Your task to perform on an android device: clear all cookies in the chrome app Image 0: 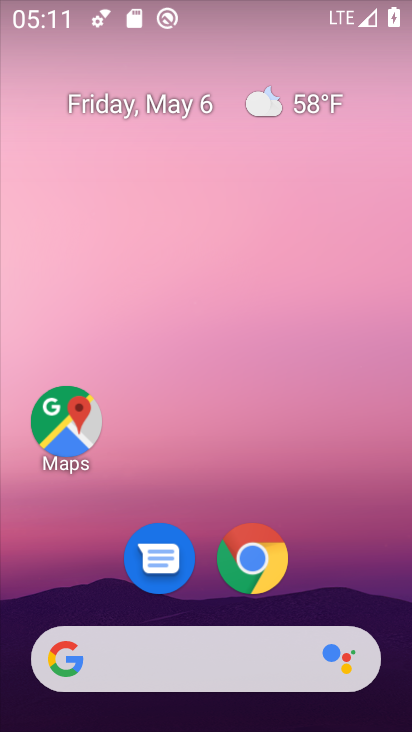
Step 0: drag from (311, 617) to (302, 1)
Your task to perform on an android device: clear all cookies in the chrome app Image 1: 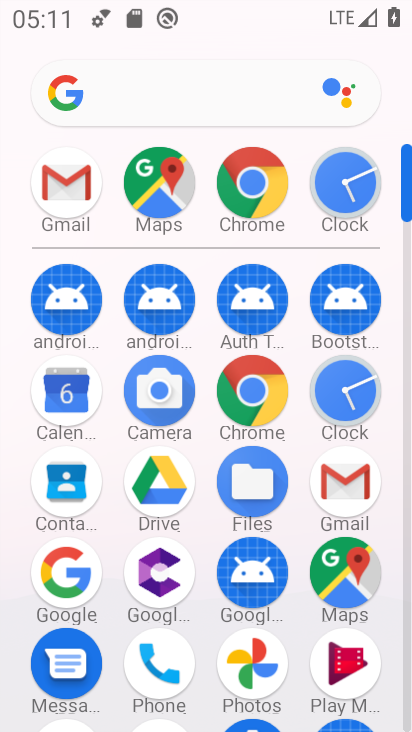
Step 1: click (257, 396)
Your task to perform on an android device: clear all cookies in the chrome app Image 2: 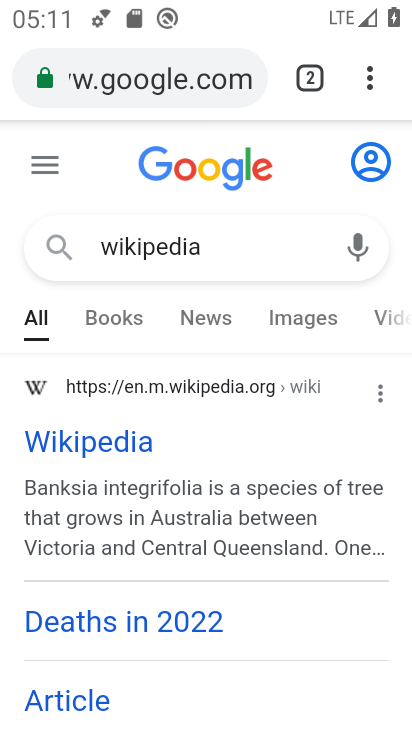
Step 2: drag from (376, 65) to (164, 632)
Your task to perform on an android device: clear all cookies in the chrome app Image 3: 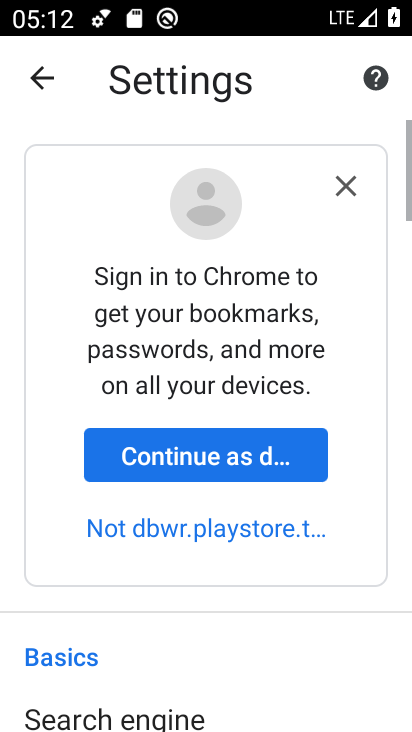
Step 3: drag from (252, 620) to (237, 63)
Your task to perform on an android device: clear all cookies in the chrome app Image 4: 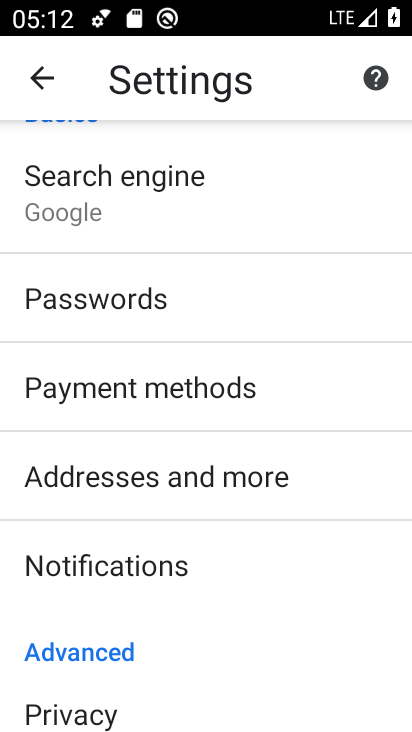
Step 4: drag from (229, 697) to (211, 460)
Your task to perform on an android device: clear all cookies in the chrome app Image 5: 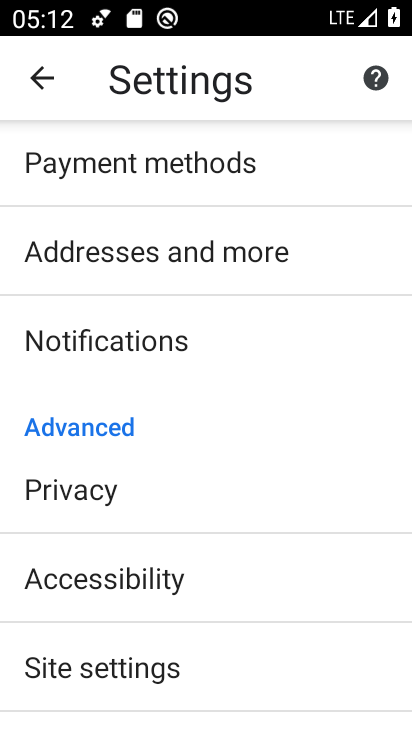
Step 5: click (122, 702)
Your task to perform on an android device: clear all cookies in the chrome app Image 6: 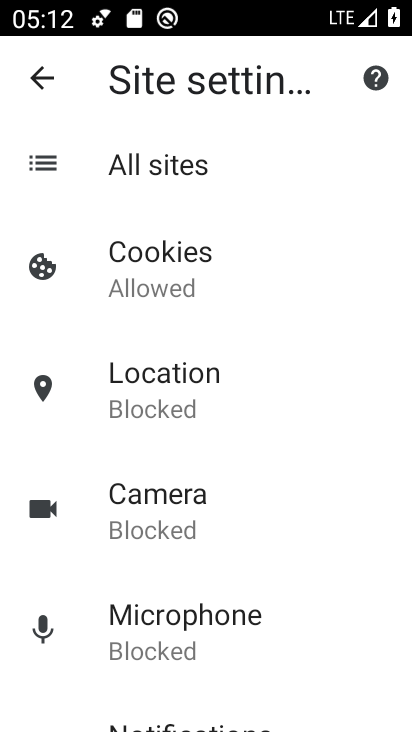
Step 6: click (175, 267)
Your task to perform on an android device: clear all cookies in the chrome app Image 7: 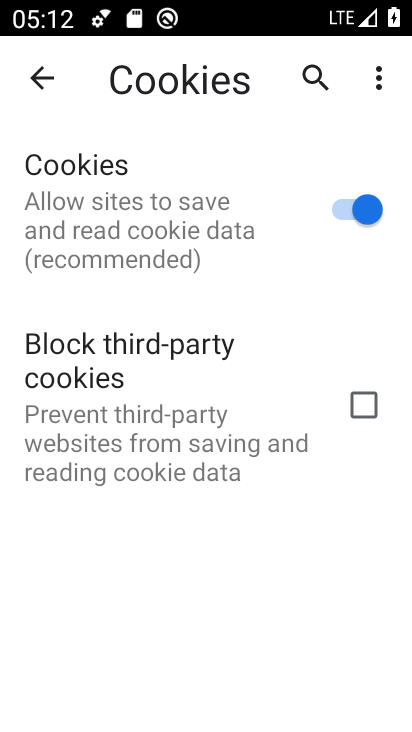
Step 7: press back button
Your task to perform on an android device: clear all cookies in the chrome app Image 8: 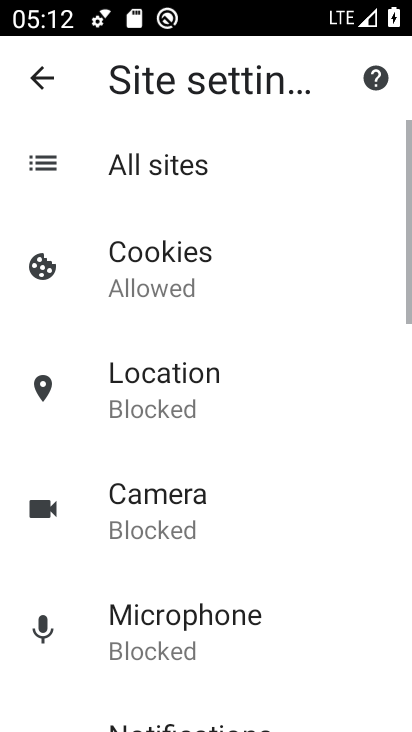
Step 8: press back button
Your task to perform on an android device: clear all cookies in the chrome app Image 9: 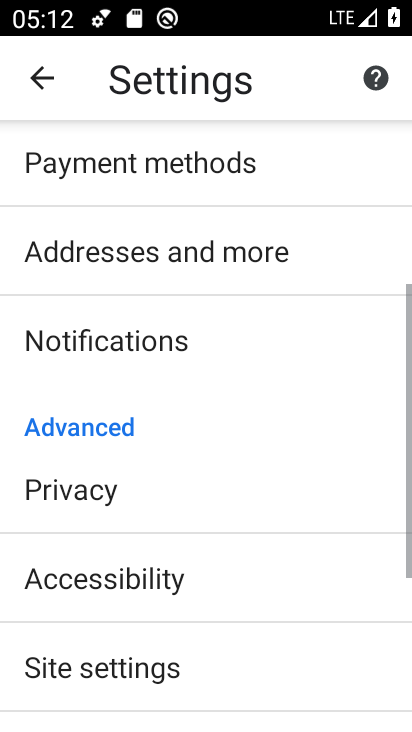
Step 9: drag from (228, 679) to (232, 79)
Your task to perform on an android device: clear all cookies in the chrome app Image 10: 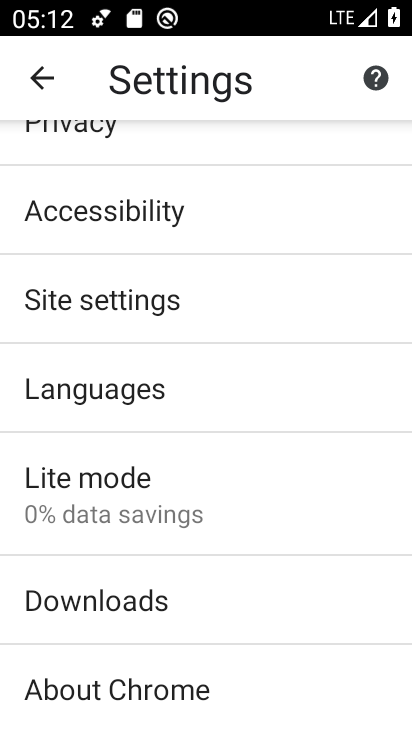
Step 10: drag from (228, 201) to (212, 583)
Your task to perform on an android device: clear all cookies in the chrome app Image 11: 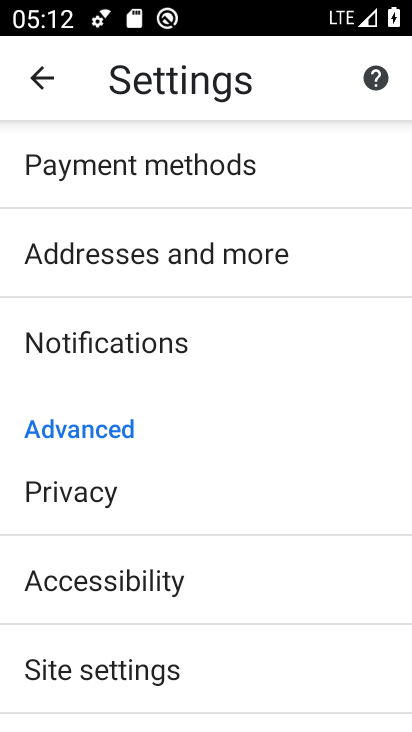
Step 11: click (124, 488)
Your task to perform on an android device: clear all cookies in the chrome app Image 12: 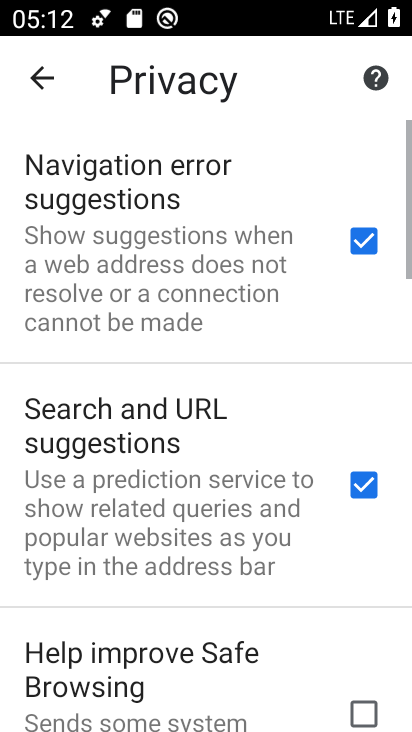
Step 12: drag from (211, 648) to (177, 110)
Your task to perform on an android device: clear all cookies in the chrome app Image 13: 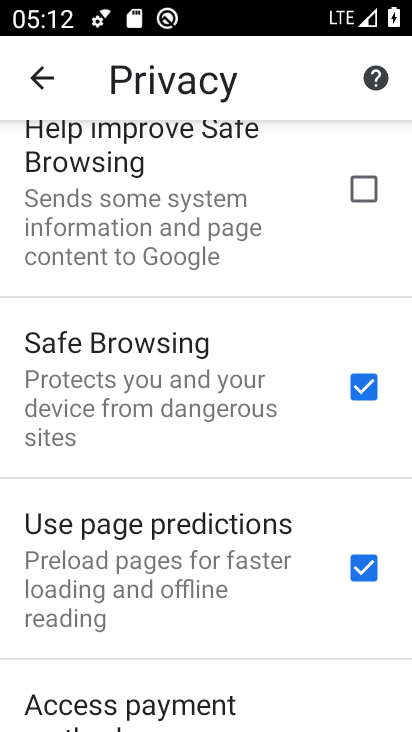
Step 13: drag from (228, 635) to (184, 88)
Your task to perform on an android device: clear all cookies in the chrome app Image 14: 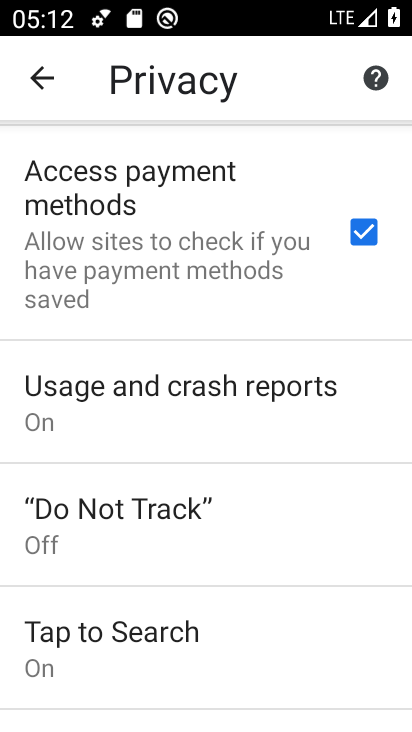
Step 14: drag from (251, 719) to (193, 237)
Your task to perform on an android device: clear all cookies in the chrome app Image 15: 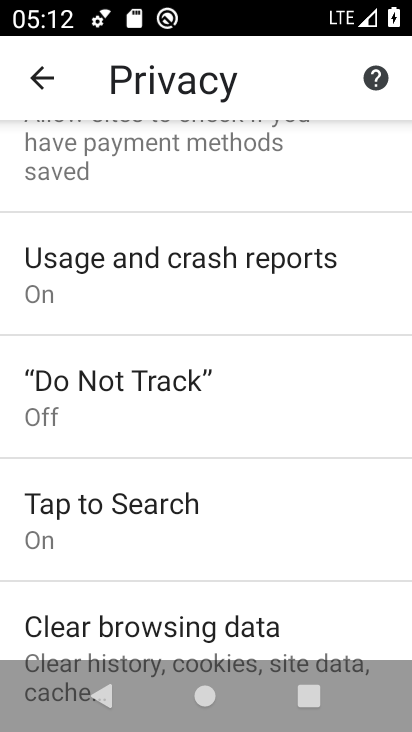
Step 15: click (290, 636)
Your task to perform on an android device: clear all cookies in the chrome app Image 16: 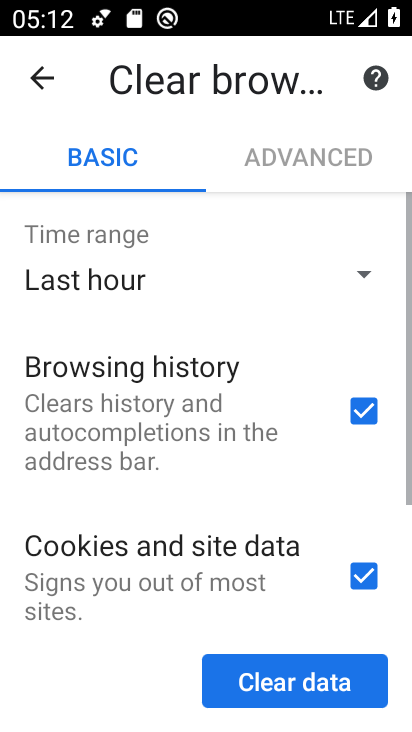
Step 16: click (346, 694)
Your task to perform on an android device: clear all cookies in the chrome app Image 17: 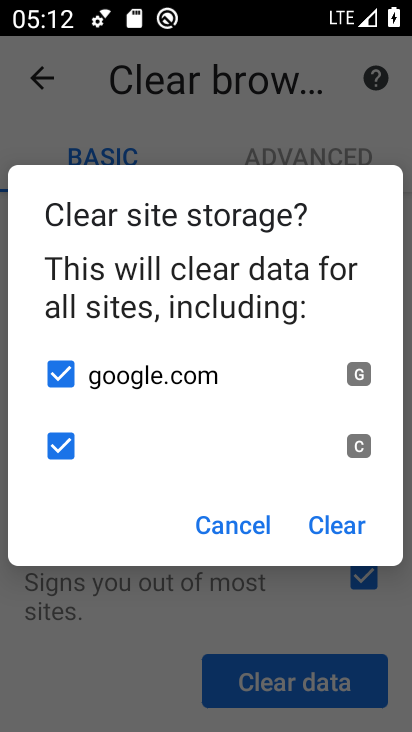
Step 17: click (335, 517)
Your task to perform on an android device: clear all cookies in the chrome app Image 18: 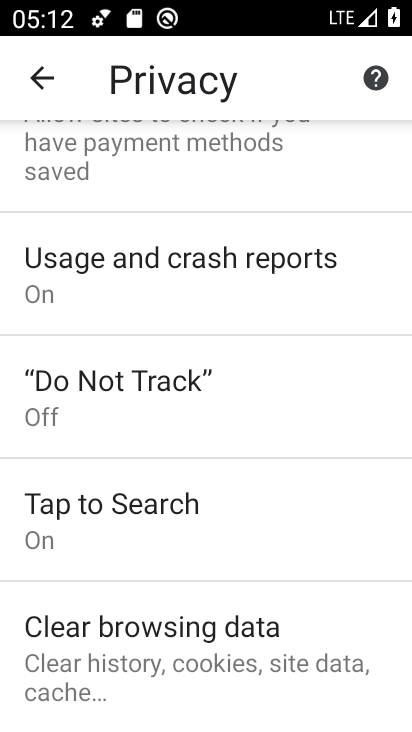
Step 18: task complete